Your task to perform on an android device: Add panasonic triple a to the cart on amazon.com Image 0: 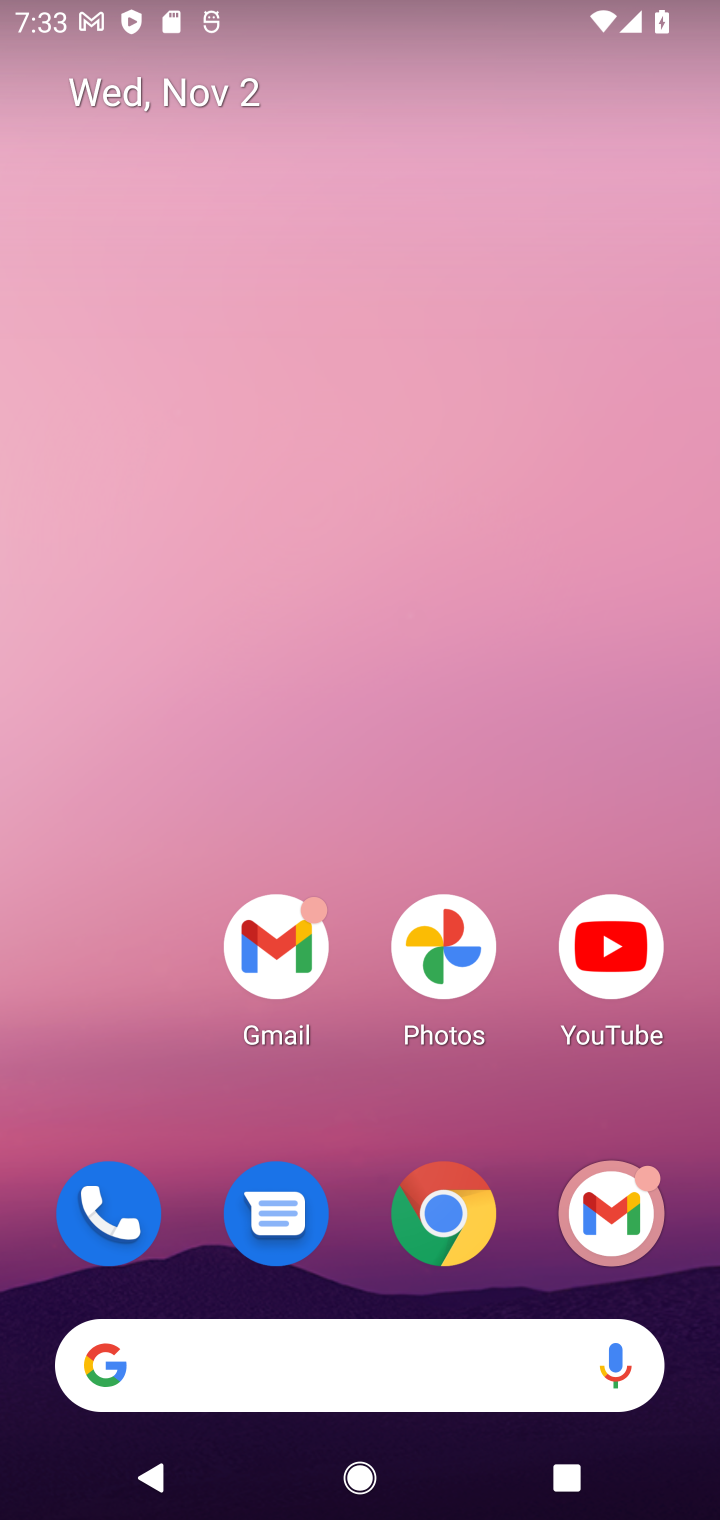
Step 0: click (441, 1215)
Your task to perform on an android device: Add panasonic triple a to the cart on amazon.com Image 1: 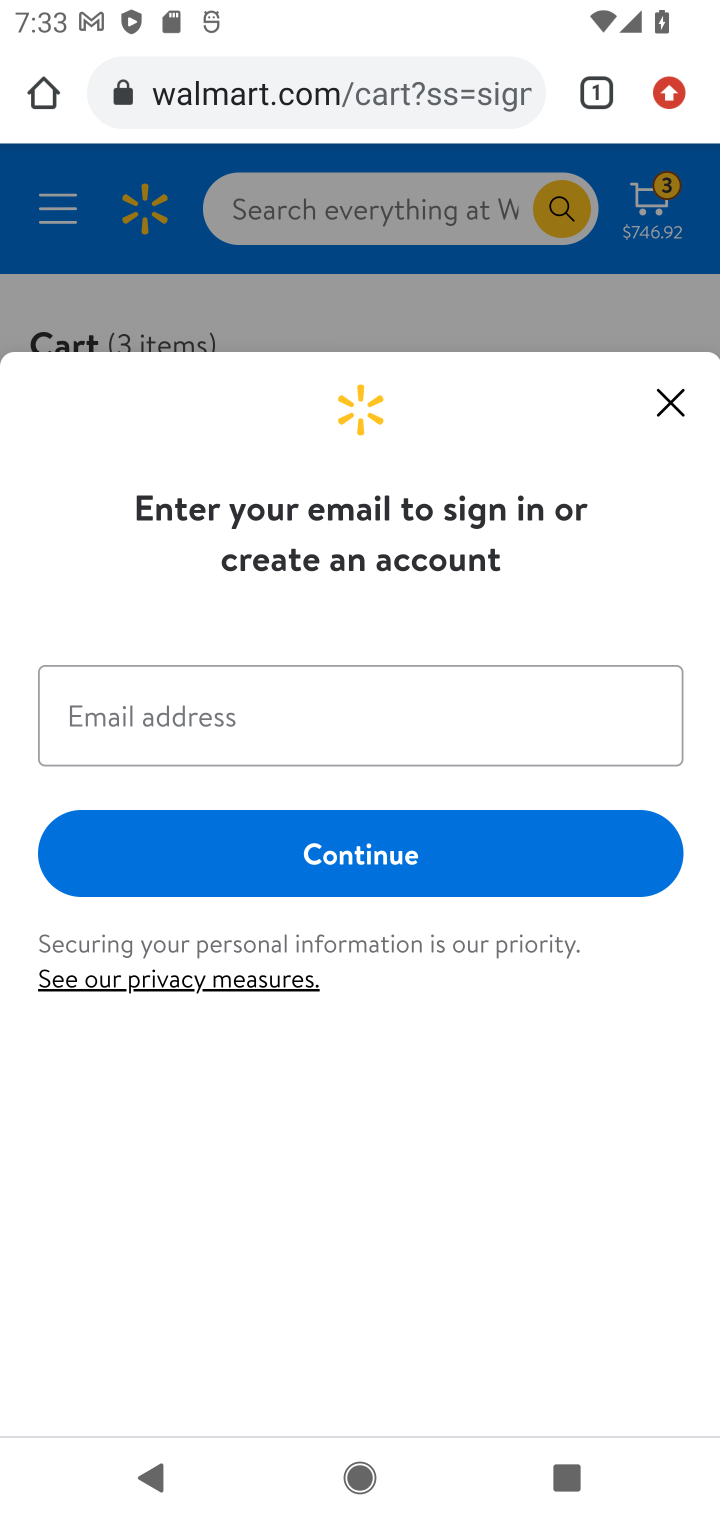
Step 1: click (365, 61)
Your task to perform on an android device: Add panasonic triple a to the cart on amazon.com Image 2: 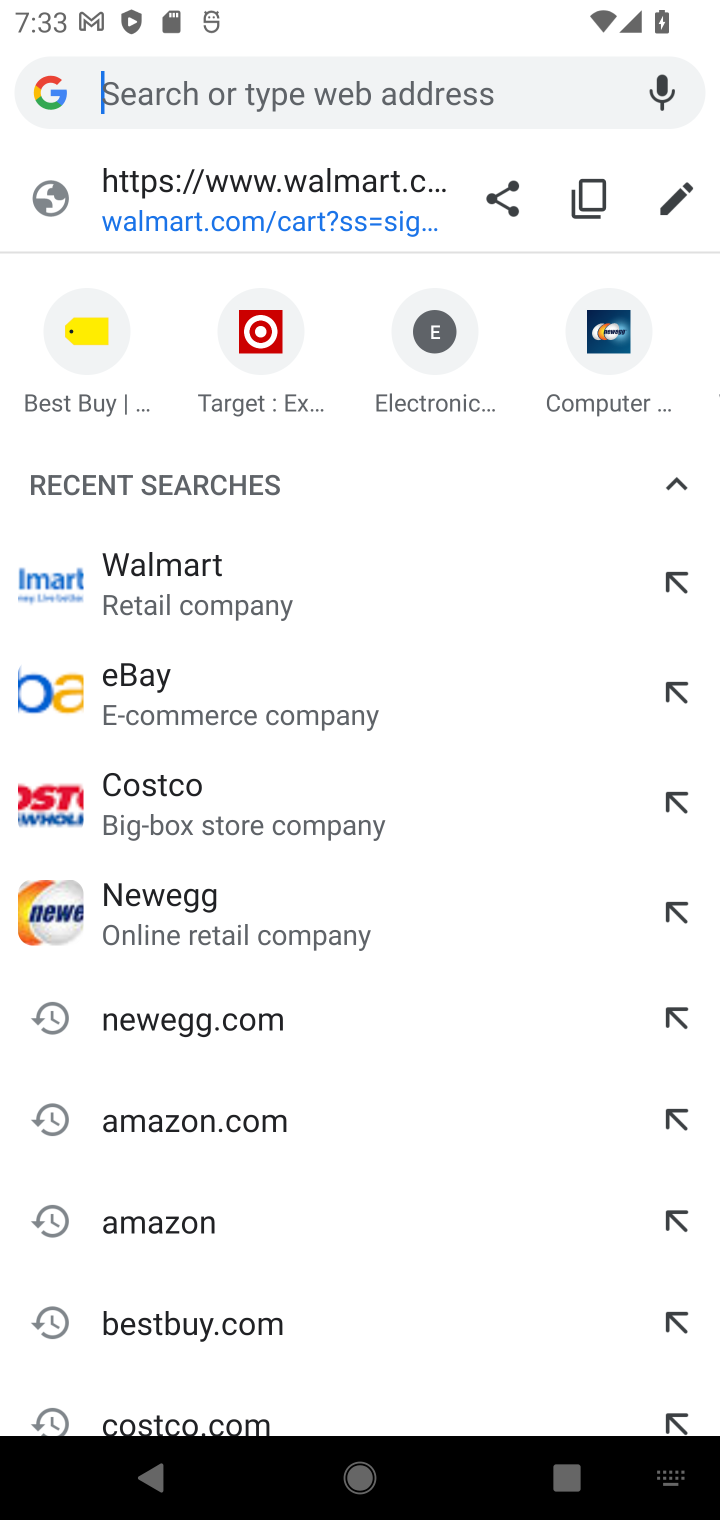
Step 2: type "amazon.com"
Your task to perform on an android device: Add panasonic triple a to the cart on amazon.com Image 3: 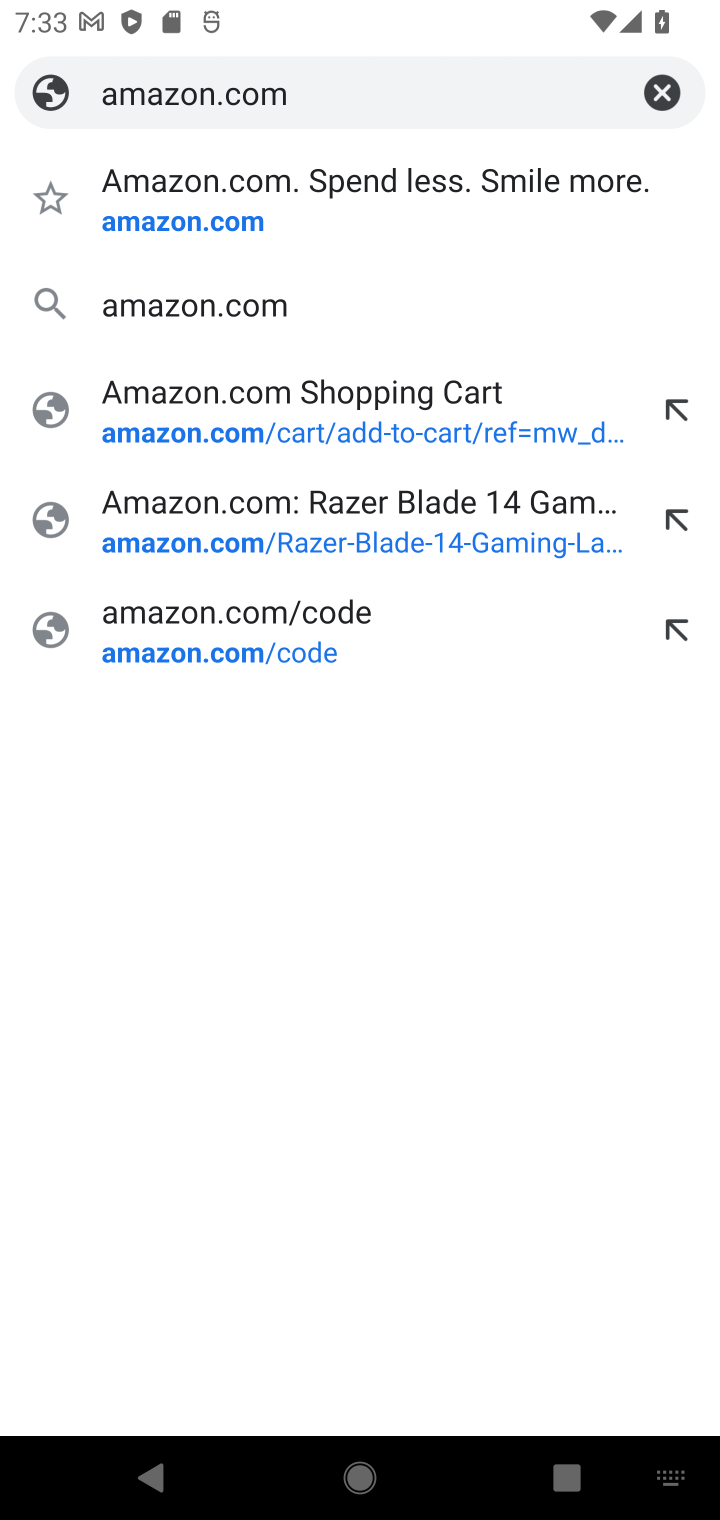
Step 3: click (184, 199)
Your task to perform on an android device: Add panasonic triple a to the cart on amazon.com Image 4: 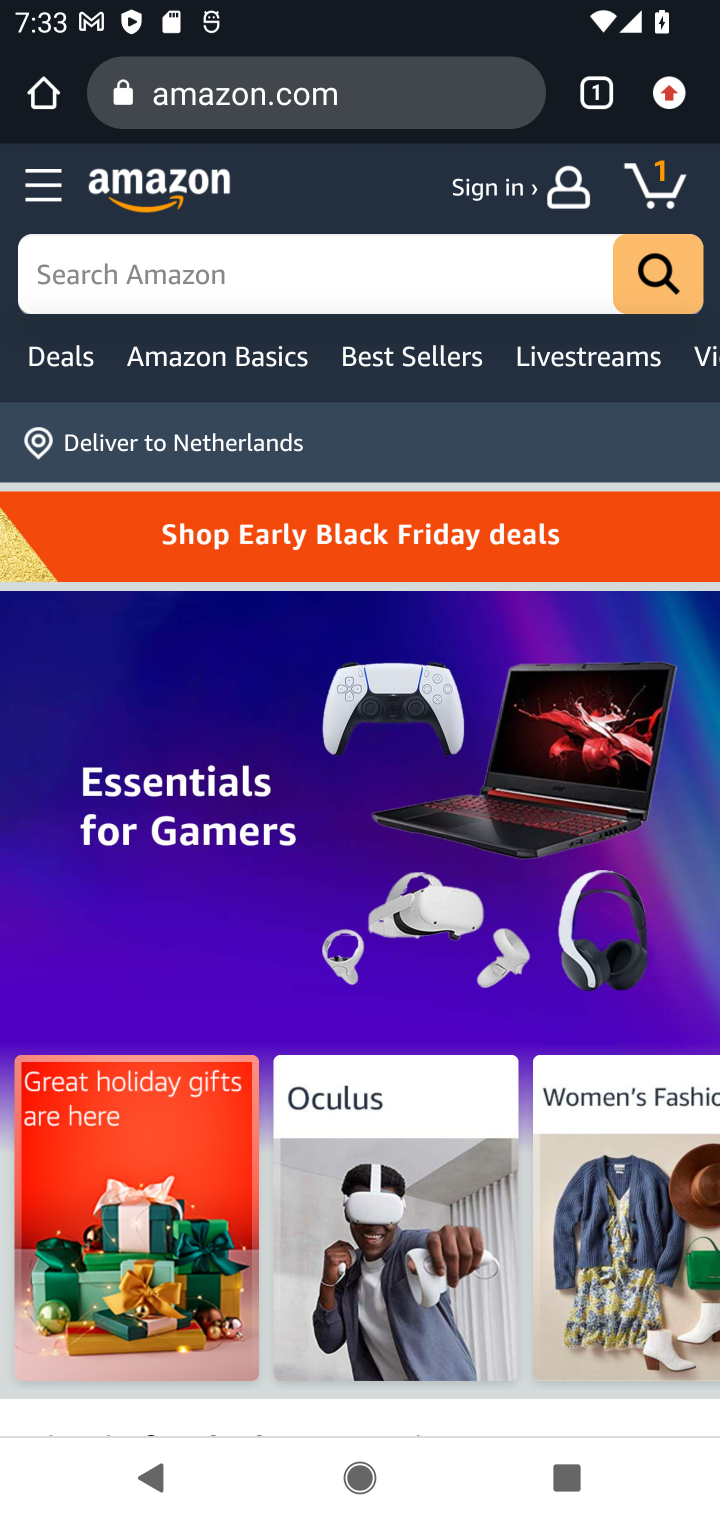
Step 4: click (236, 271)
Your task to perform on an android device: Add panasonic triple a to the cart on amazon.com Image 5: 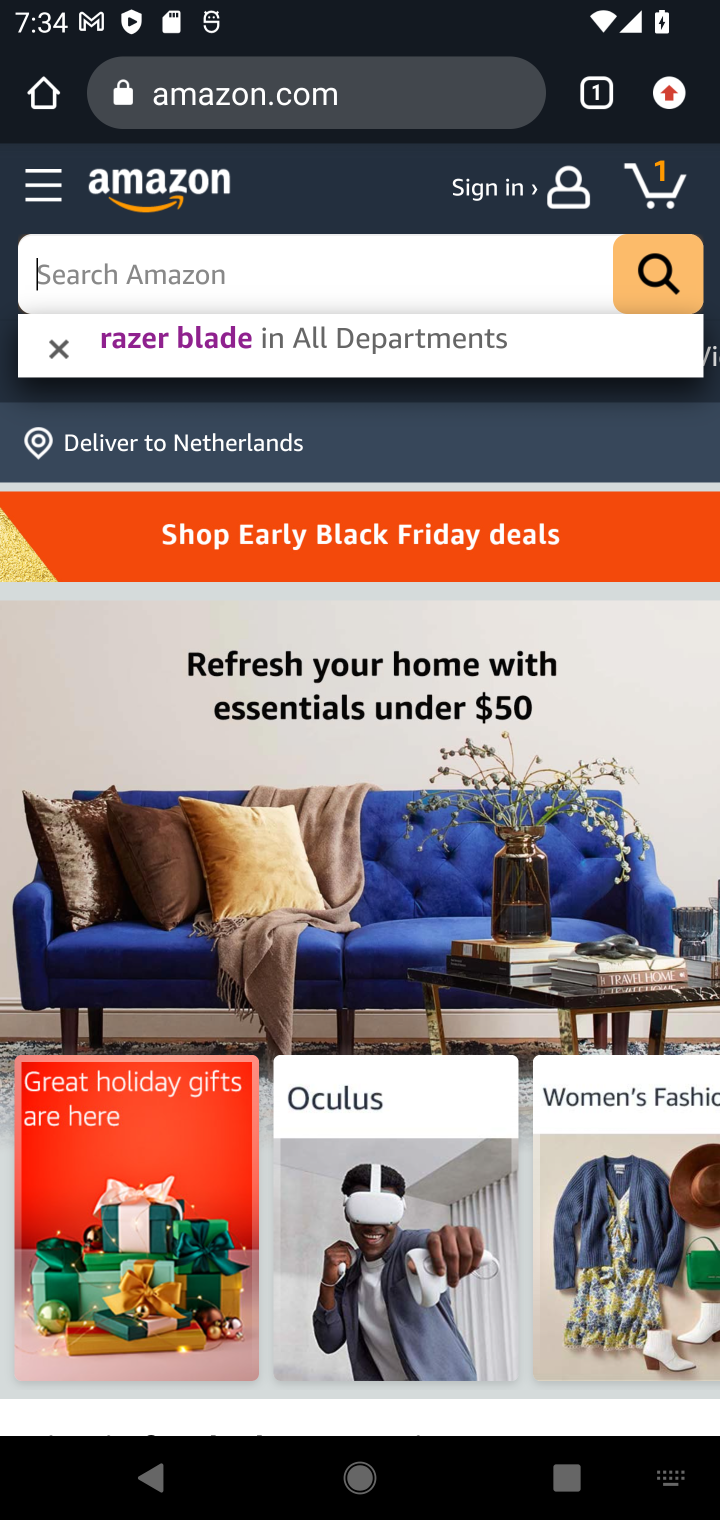
Step 5: type "panasonic triple a"
Your task to perform on an android device: Add panasonic triple a to the cart on amazon.com Image 6: 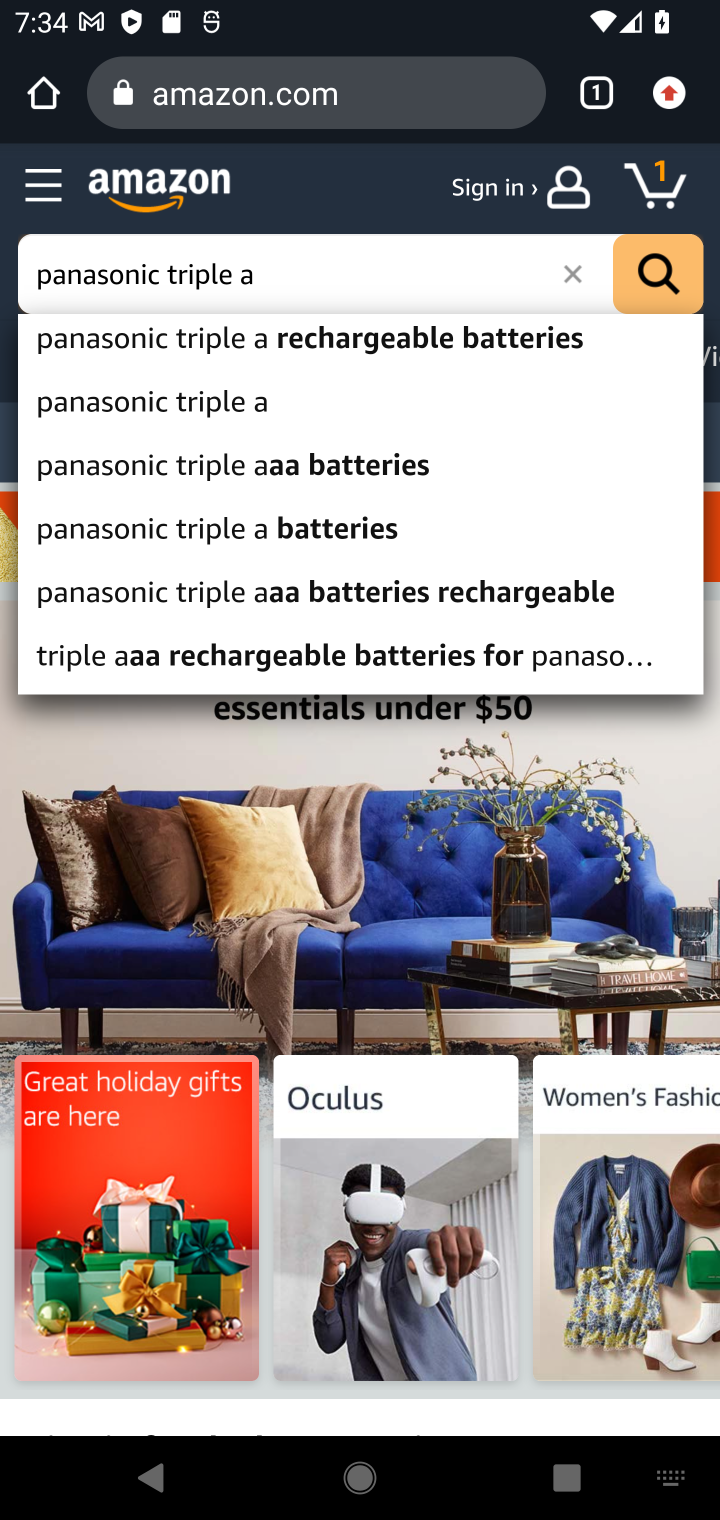
Step 6: click (154, 398)
Your task to perform on an android device: Add panasonic triple a to the cart on amazon.com Image 7: 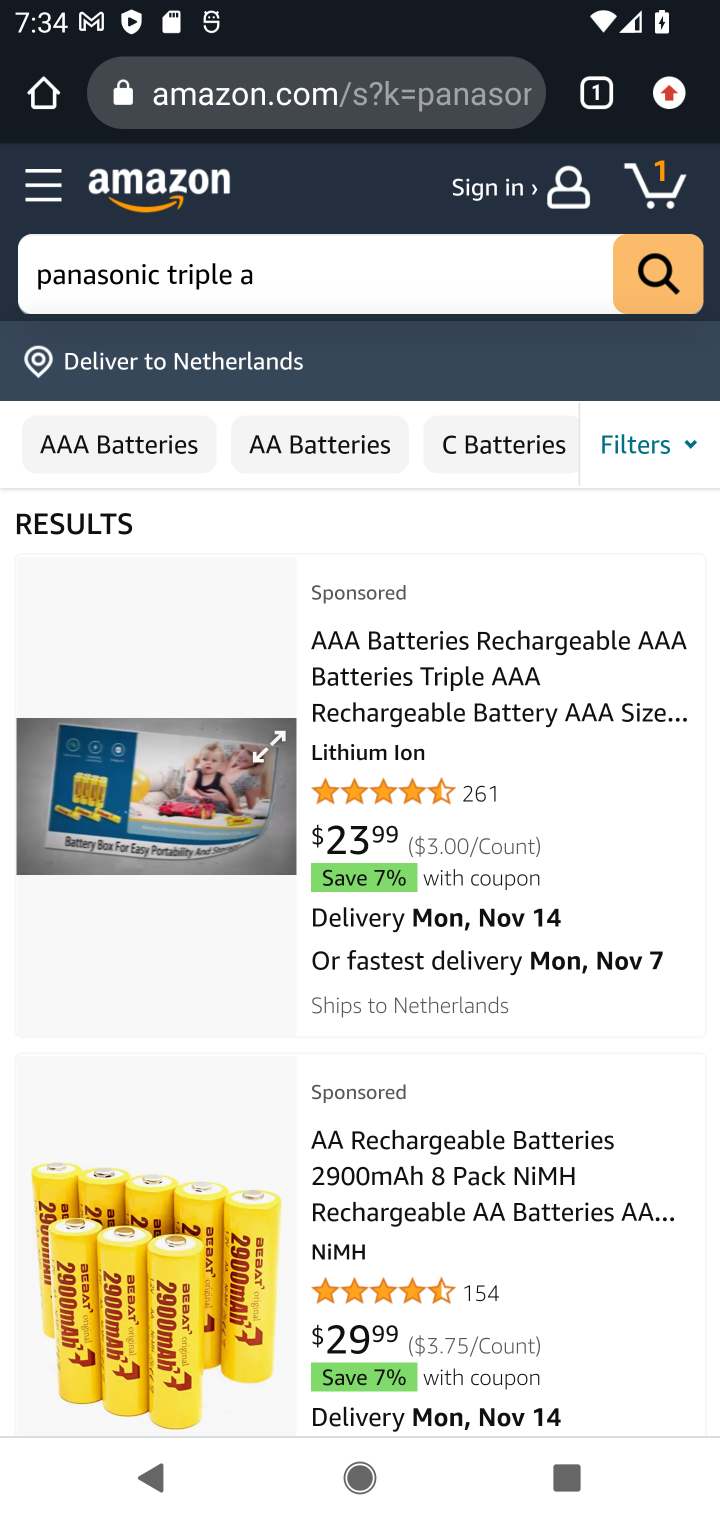
Step 7: click (456, 658)
Your task to perform on an android device: Add panasonic triple a to the cart on amazon.com Image 8: 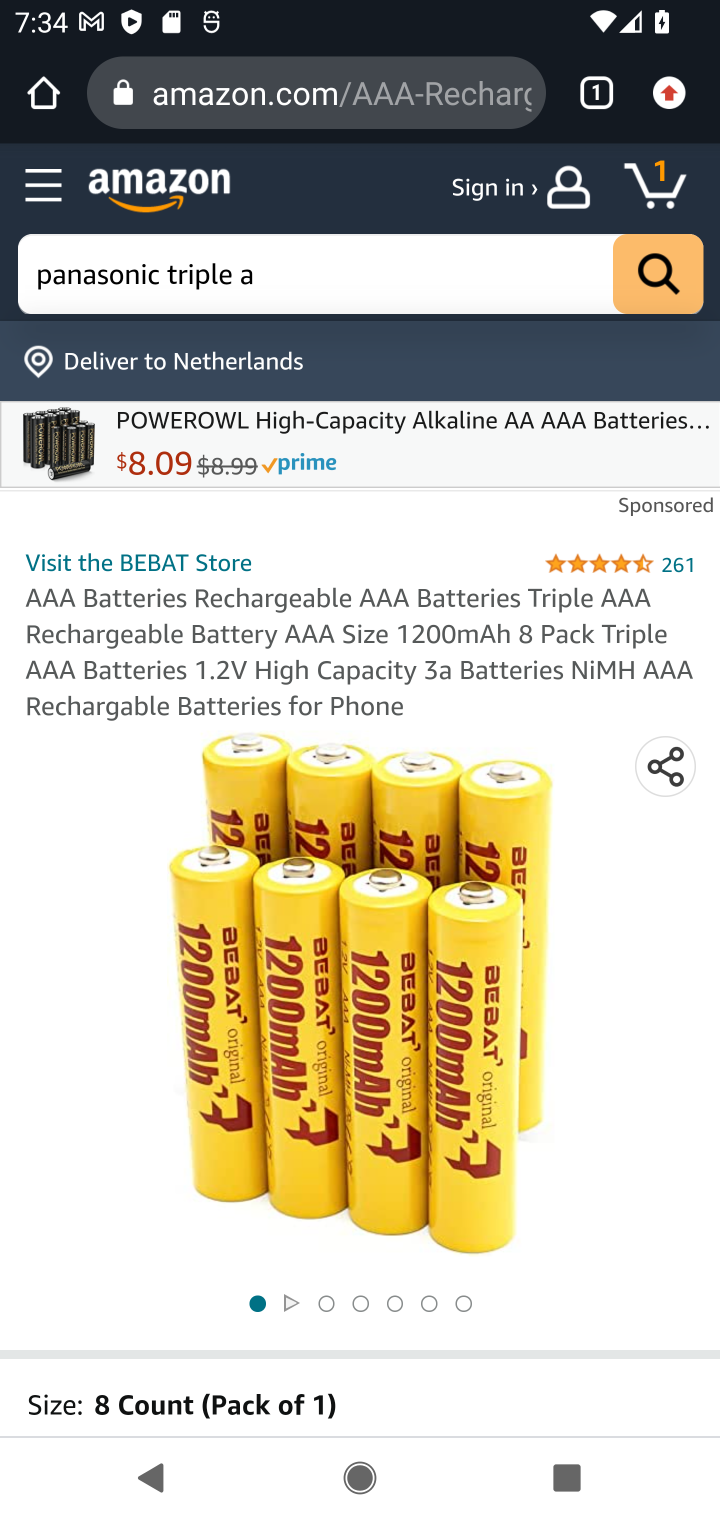
Step 8: drag from (587, 1380) to (510, 969)
Your task to perform on an android device: Add panasonic triple a to the cart on amazon.com Image 9: 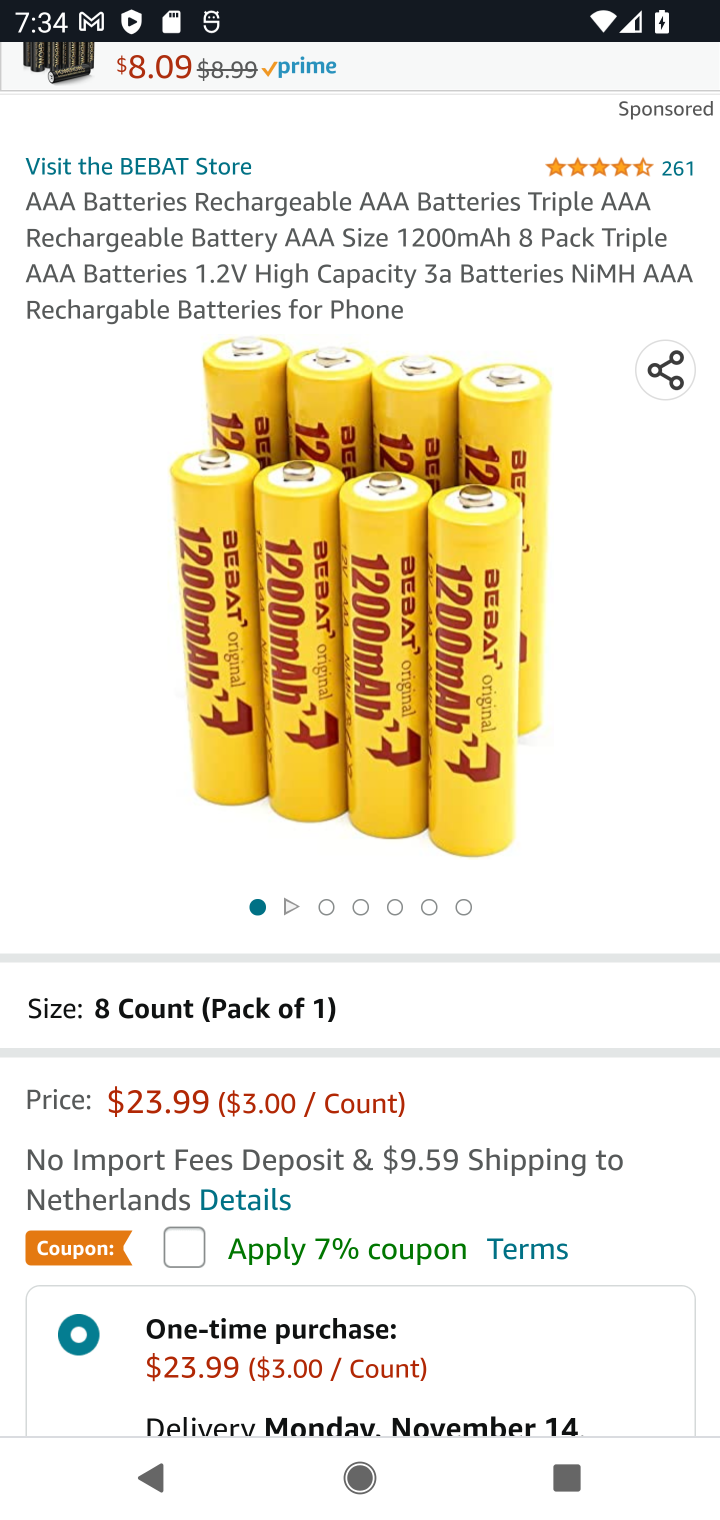
Step 9: drag from (478, 1203) to (375, 340)
Your task to perform on an android device: Add panasonic triple a to the cart on amazon.com Image 10: 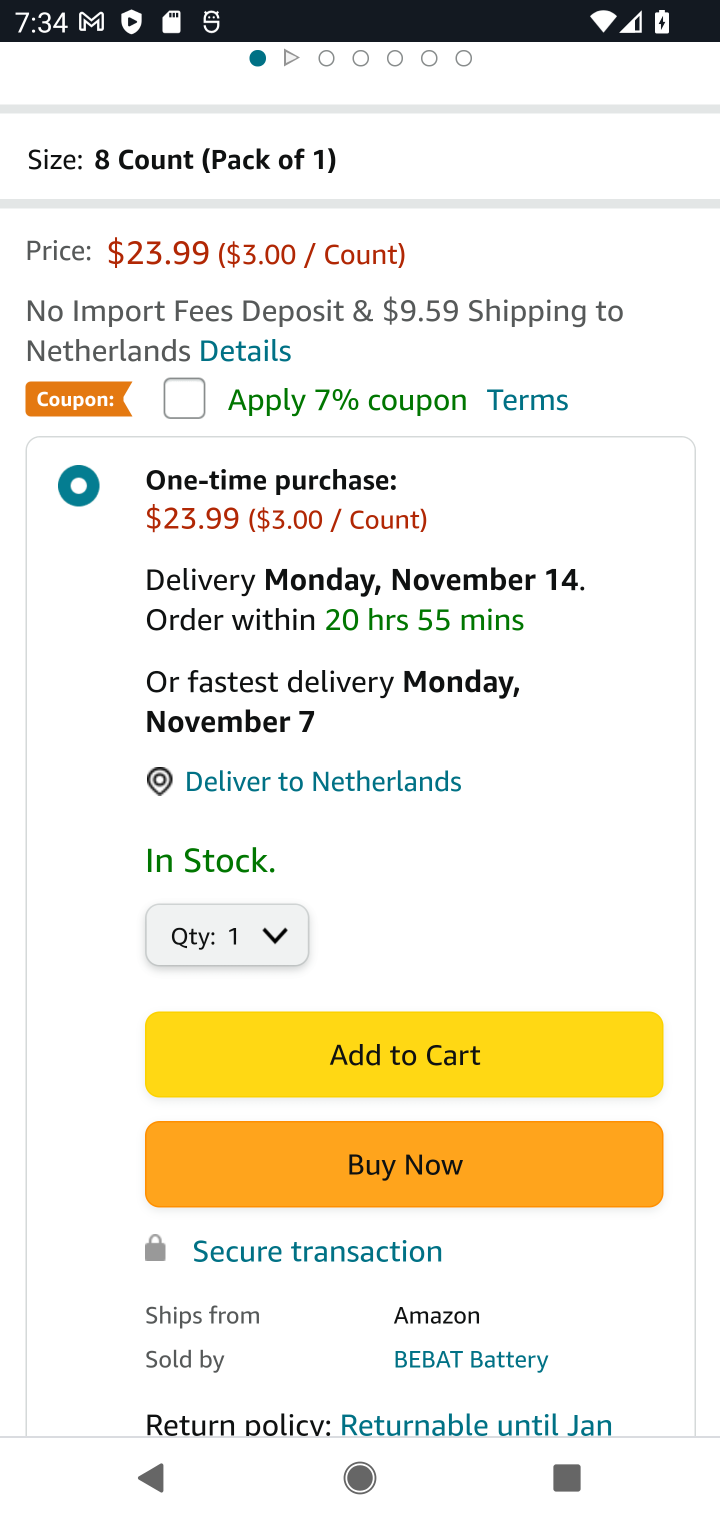
Step 10: click (410, 1046)
Your task to perform on an android device: Add panasonic triple a to the cart on amazon.com Image 11: 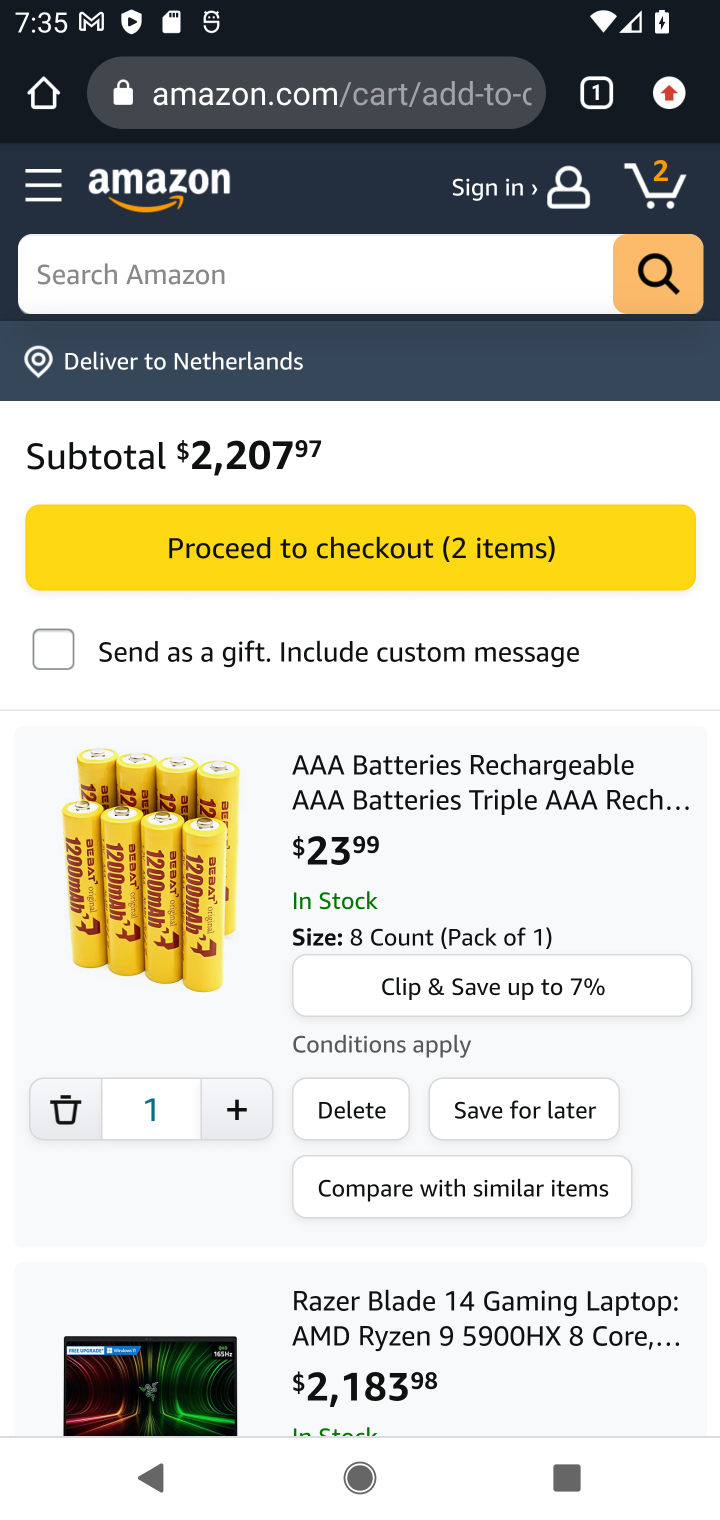
Step 11: task complete